Your task to perform on an android device: Turn off the flashlight Image 0: 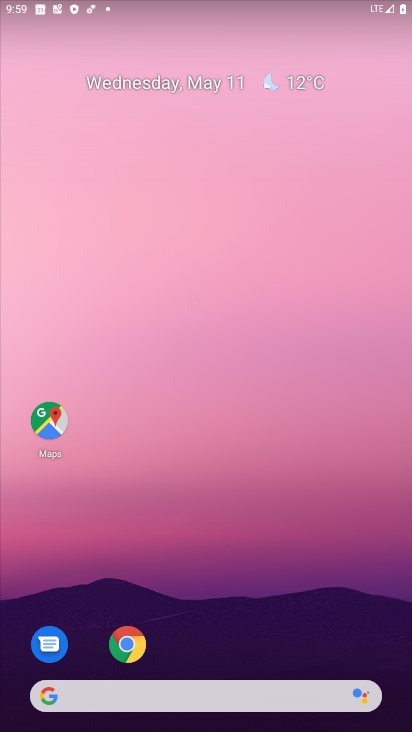
Step 0: drag from (312, 639) to (289, 51)
Your task to perform on an android device: Turn off the flashlight Image 1: 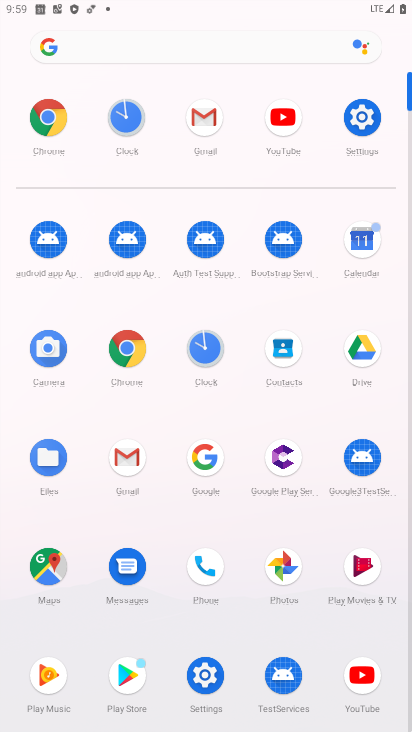
Step 1: click (359, 123)
Your task to perform on an android device: Turn off the flashlight Image 2: 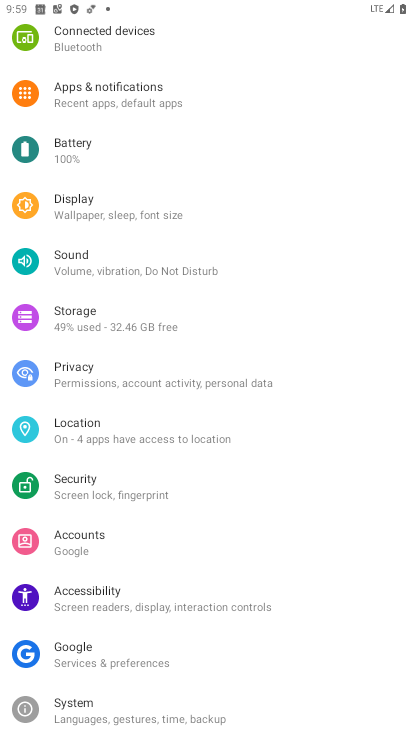
Step 2: click (265, 215)
Your task to perform on an android device: Turn off the flashlight Image 3: 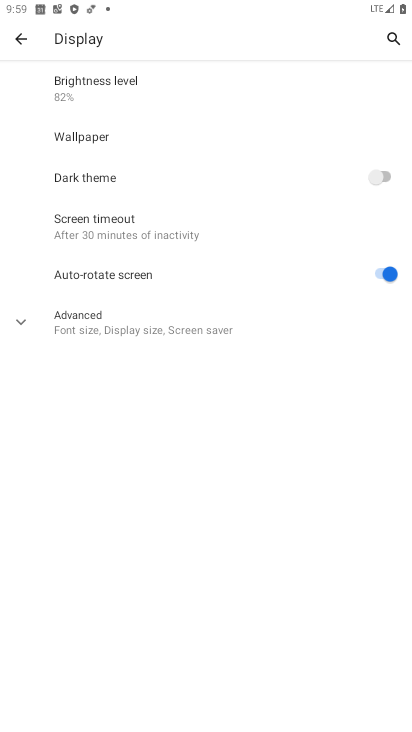
Step 3: task complete